Your task to perform on an android device: What's the news in Uruguay? Image 0: 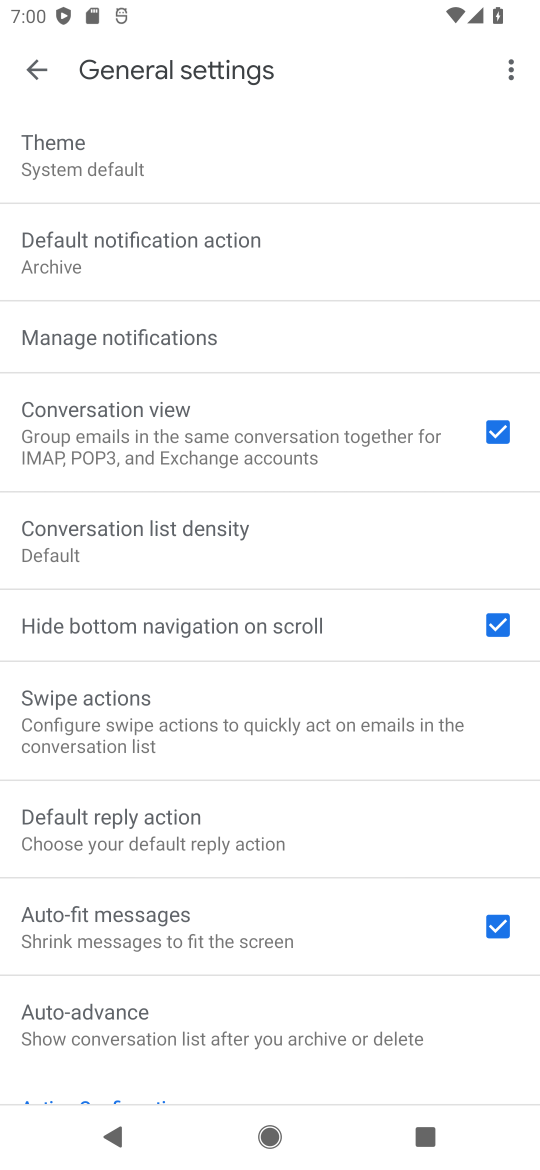
Step 0: press home button
Your task to perform on an android device: What's the news in Uruguay? Image 1: 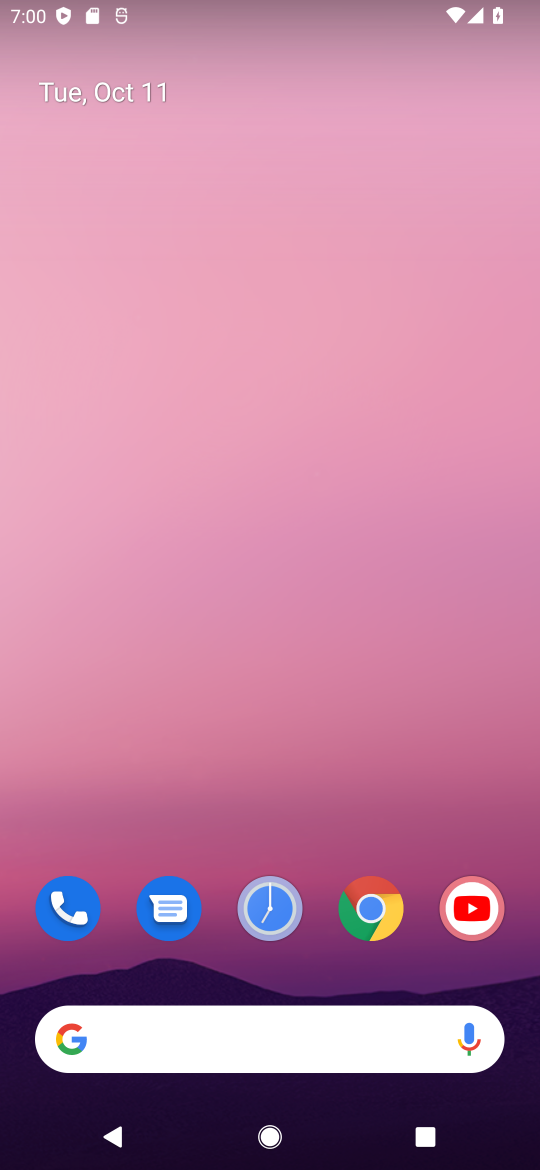
Step 1: click (196, 1026)
Your task to perform on an android device: What's the news in Uruguay? Image 2: 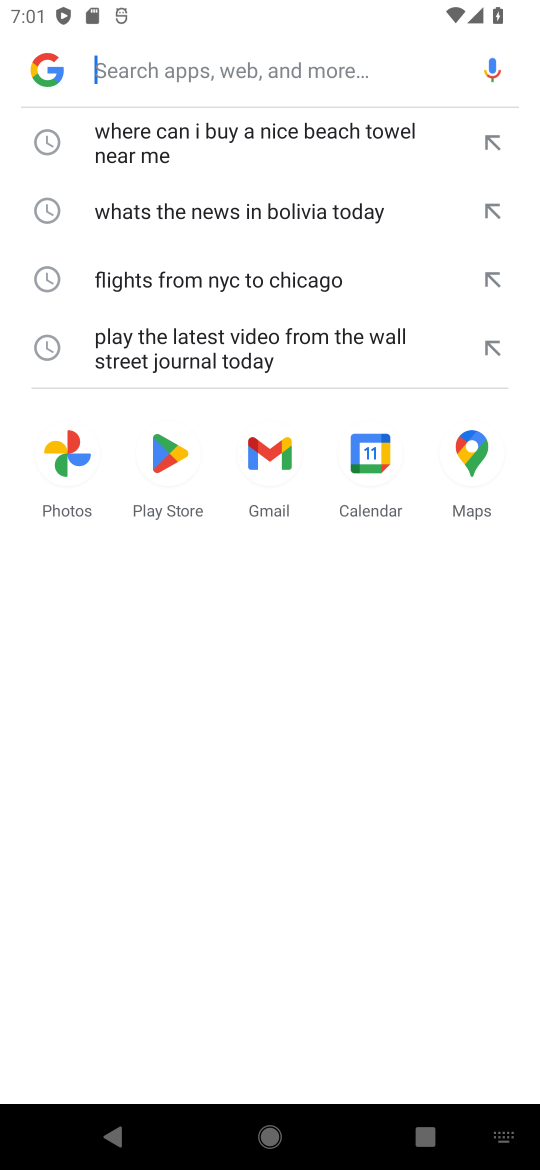
Step 2: type "news in uruguay?"
Your task to perform on an android device: What's the news in Uruguay? Image 3: 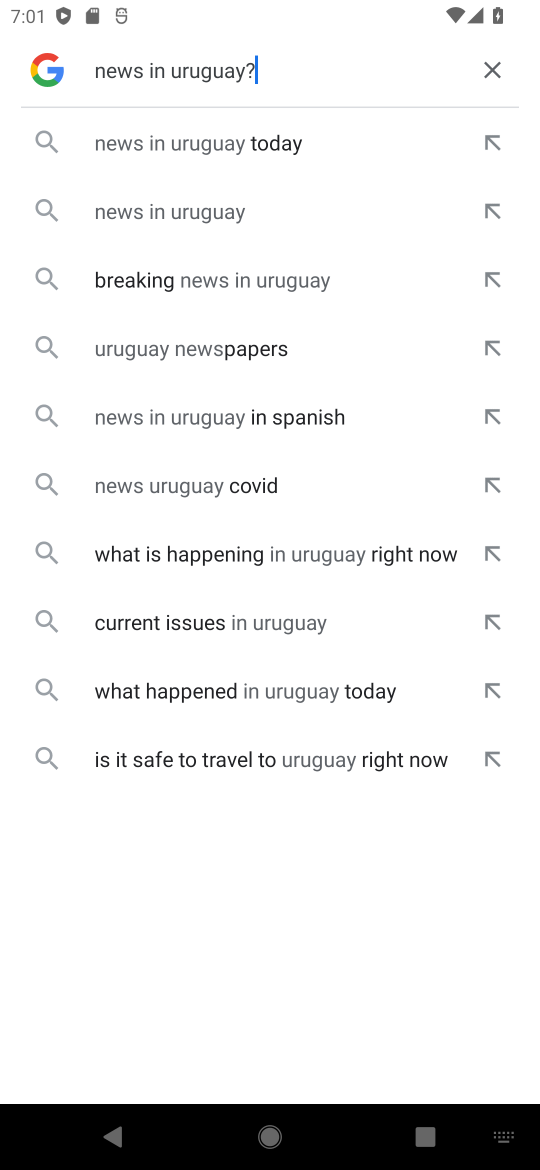
Step 3: click (183, 204)
Your task to perform on an android device: What's the news in Uruguay? Image 4: 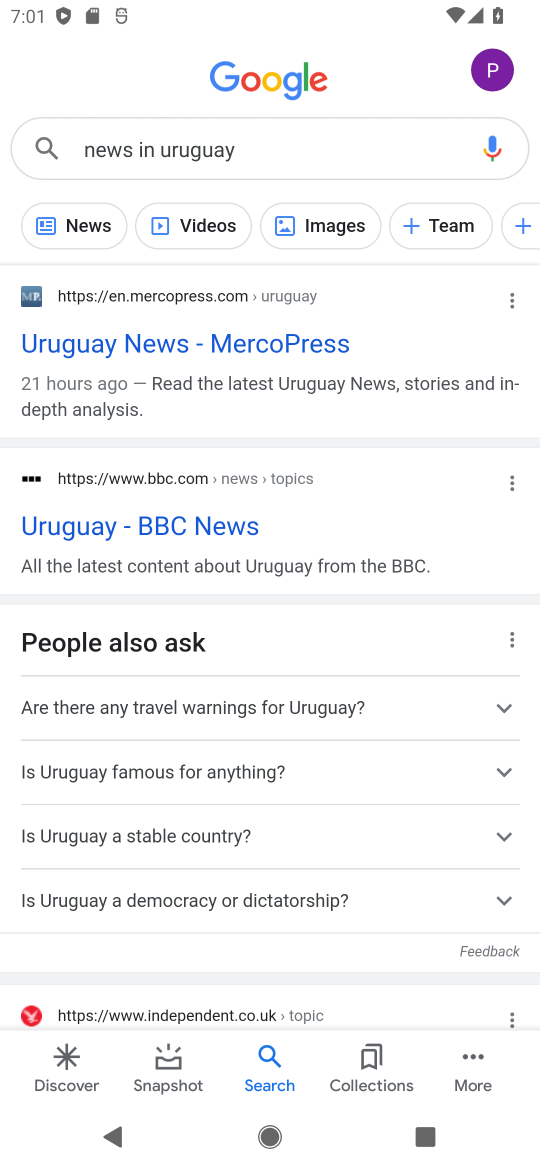
Step 4: click (133, 335)
Your task to perform on an android device: What's the news in Uruguay? Image 5: 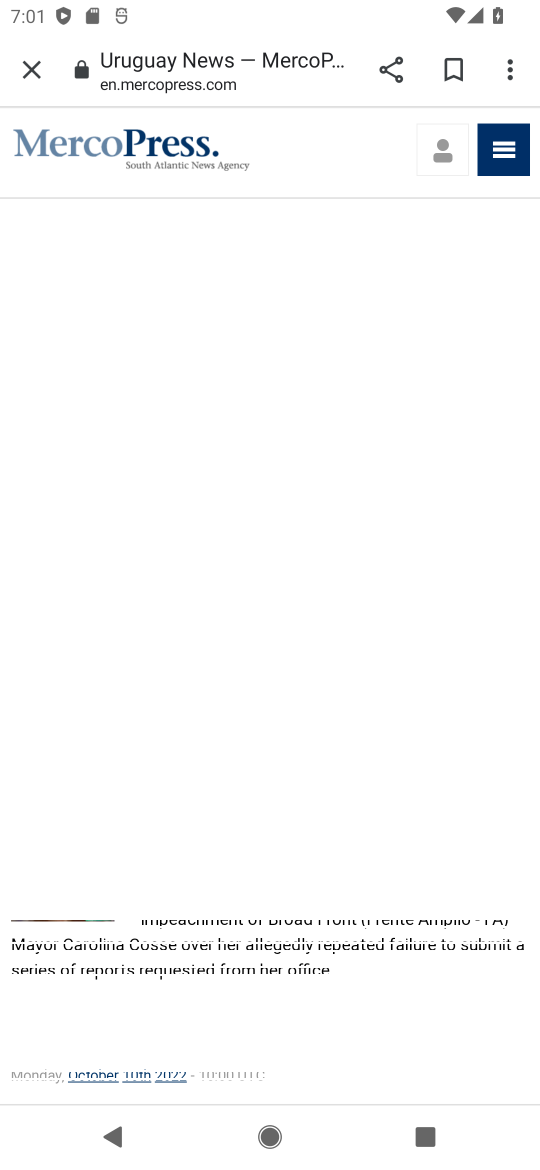
Step 5: click (222, 346)
Your task to perform on an android device: What's the news in Uruguay? Image 6: 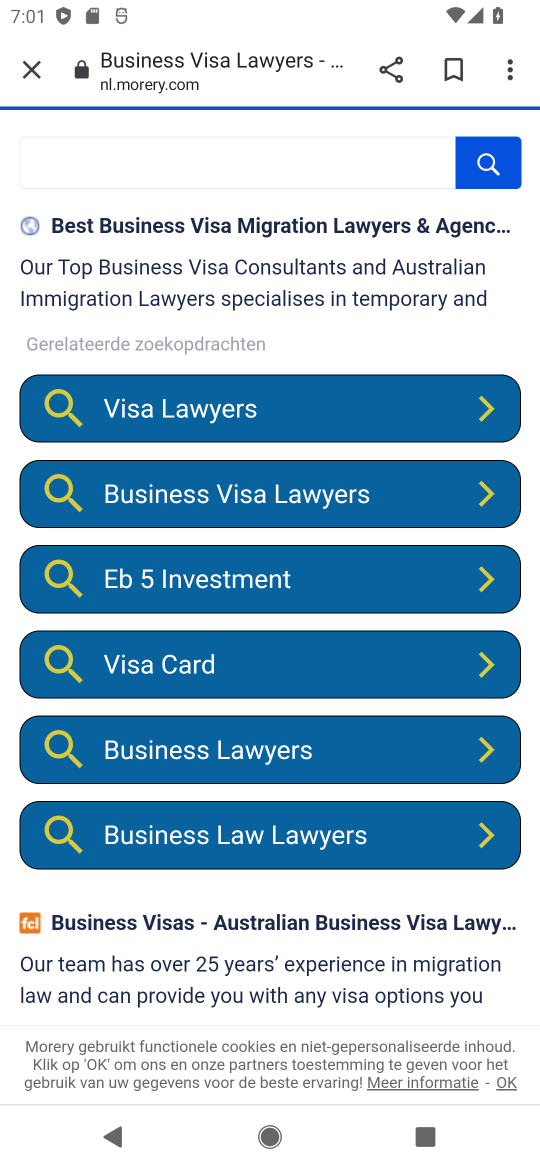
Step 6: task complete